Your task to perform on an android device: move an email to a new category in the gmail app Image 0: 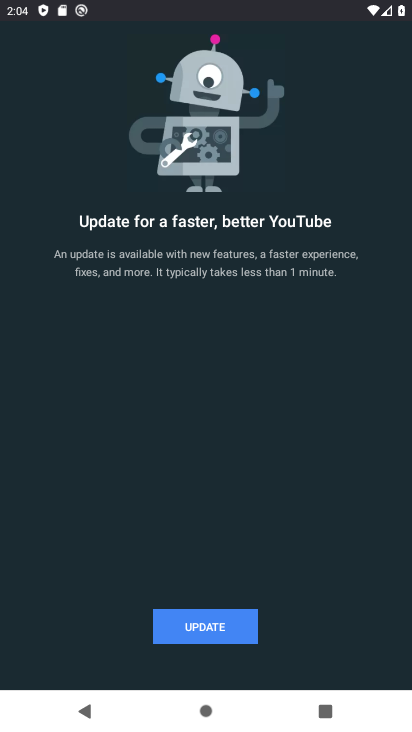
Step 0: press back button
Your task to perform on an android device: move an email to a new category in the gmail app Image 1: 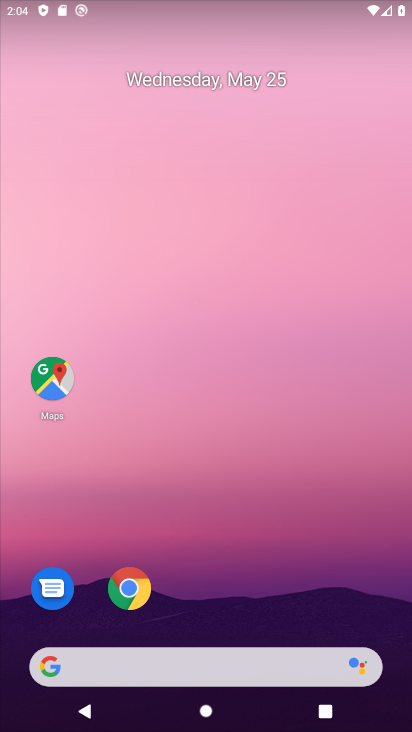
Step 1: drag from (209, 483) to (159, 17)
Your task to perform on an android device: move an email to a new category in the gmail app Image 2: 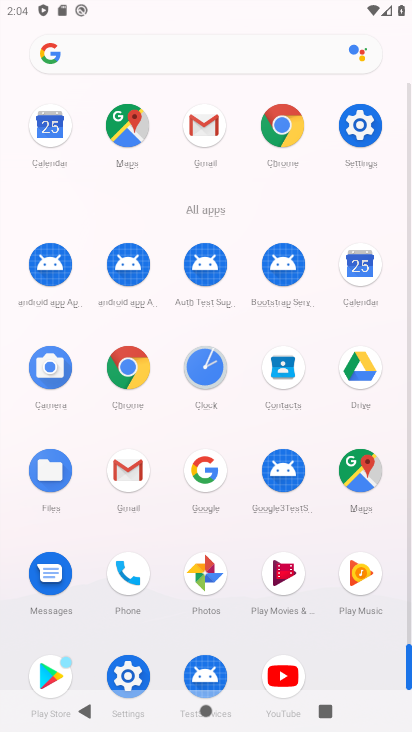
Step 2: drag from (11, 468) to (12, 190)
Your task to perform on an android device: move an email to a new category in the gmail app Image 3: 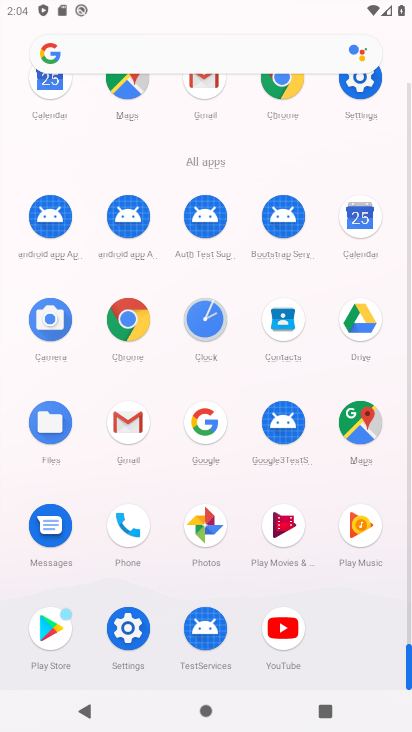
Step 3: click (126, 417)
Your task to perform on an android device: move an email to a new category in the gmail app Image 4: 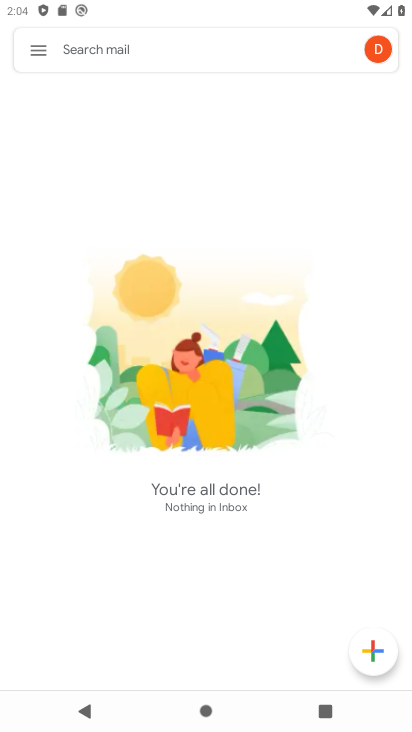
Step 4: click (40, 44)
Your task to perform on an android device: move an email to a new category in the gmail app Image 5: 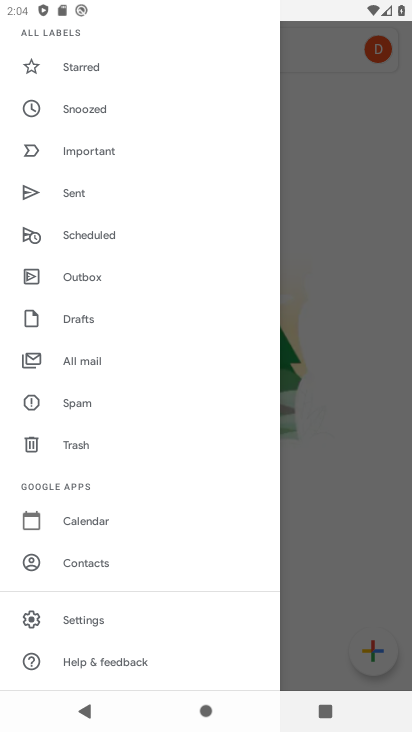
Step 5: click (88, 354)
Your task to perform on an android device: move an email to a new category in the gmail app Image 6: 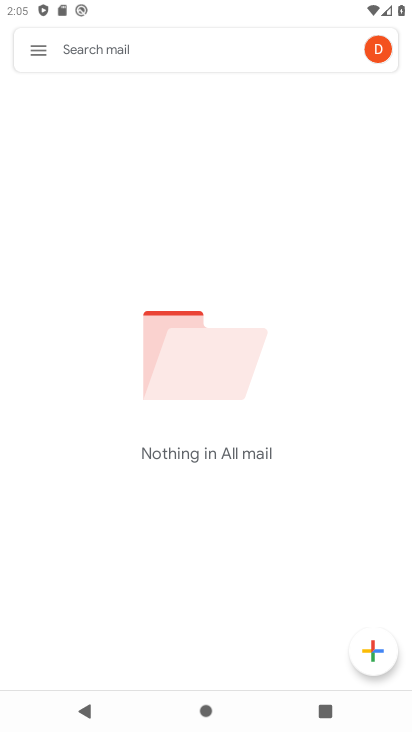
Step 6: click (35, 33)
Your task to perform on an android device: move an email to a new category in the gmail app Image 7: 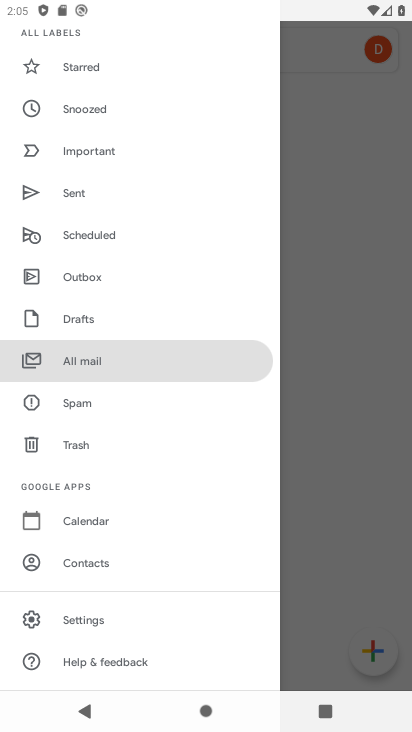
Step 7: click (78, 313)
Your task to perform on an android device: move an email to a new category in the gmail app Image 8: 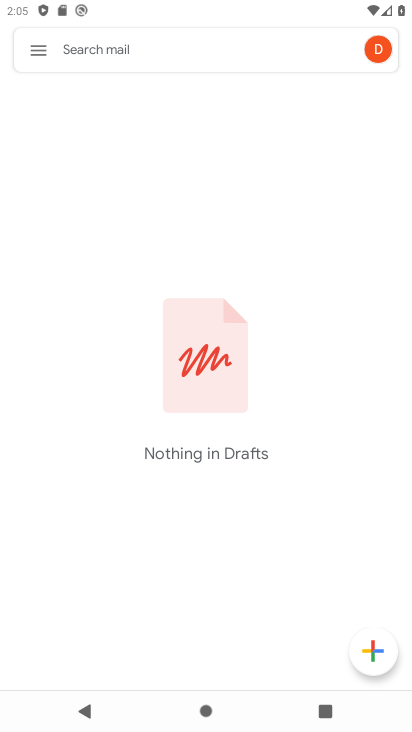
Step 8: task complete